Your task to perform on an android device: turn on bluetooth scan Image 0: 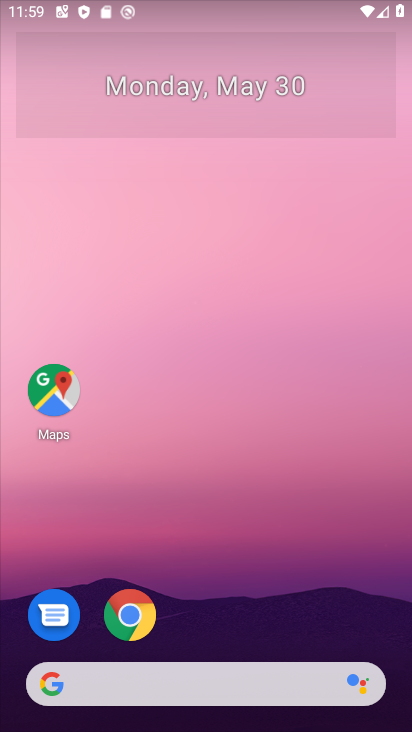
Step 0: drag from (243, 573) to (360, 51)
Your task to perform on an android device: turn on bluetooth scan Image 1: 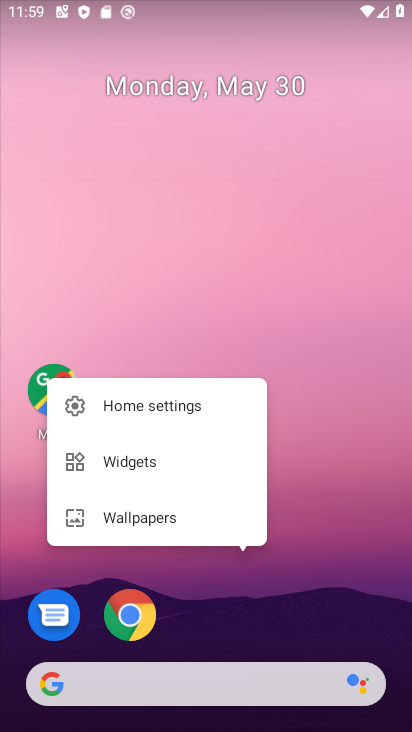
Step 1: click (308, 572)
Your task to perform on an android device: turn on bluetooth scan Image 2: 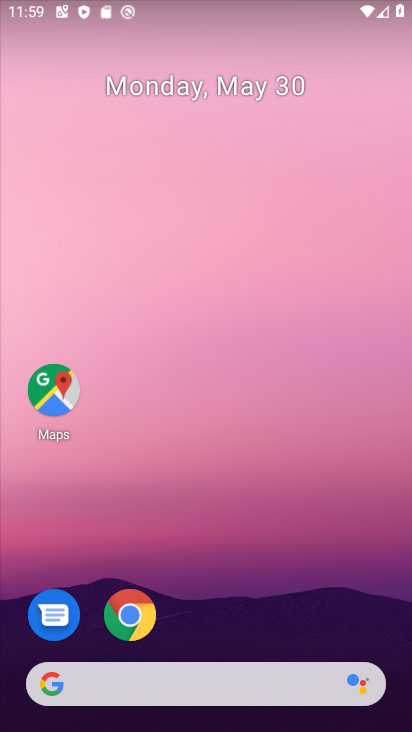
Step 2: drag from (220, 646) to (259, 9)
Your task to perform on an android device: turn on bluetooth scan Image 3: 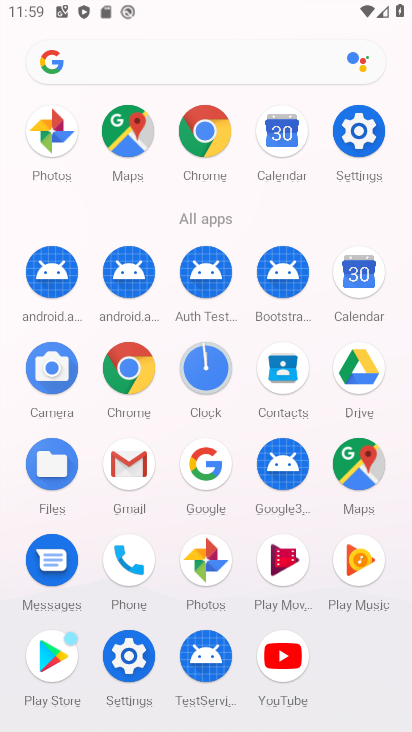
Step 3: click (364, 135)
Your task to perform on an android device: turn on bluetooth scan Image 4: 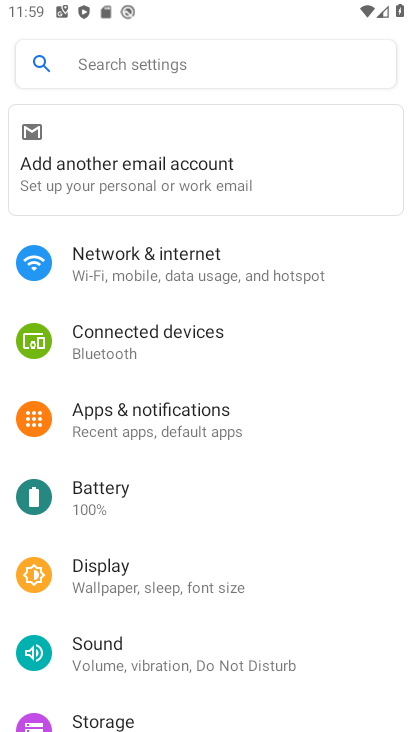
Step 4: drag from (189, 631) to (216, 297)
Your task to perform on an android device: turn on bluetooth scan Image 5: 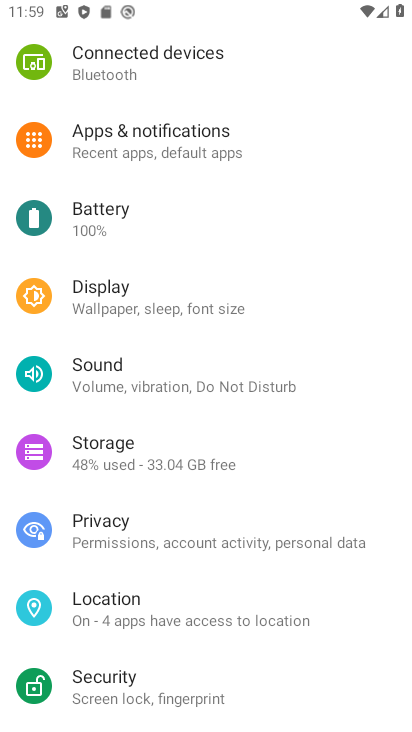
Step 5: drag from (161, 622) to (246, 145)
Your task to perform on an android device: turn on bluetooth scan Image 6: 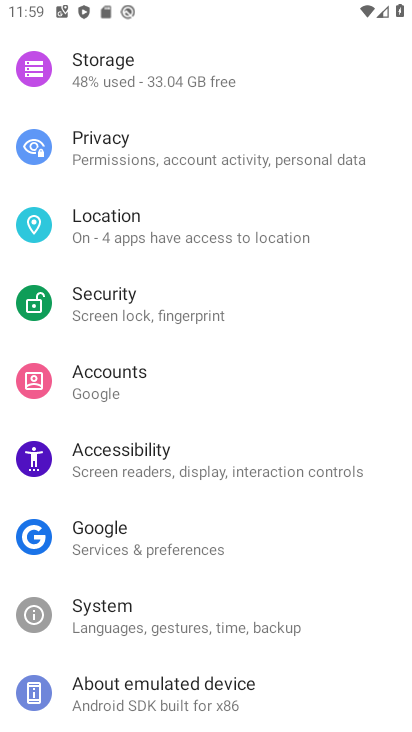
Step 6: click (144, 244)
Your task to perform on an android device: turn on bluetooth scan Image 7: 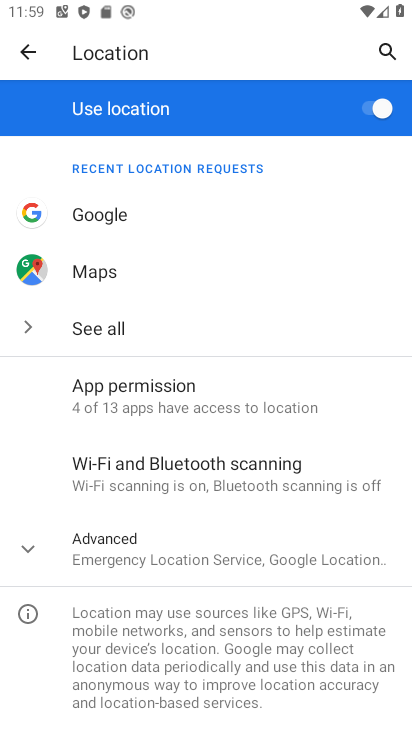
Step 7: click (177, 488)
Your task to perform on an android device: turn on bluetooth scan Image 8: 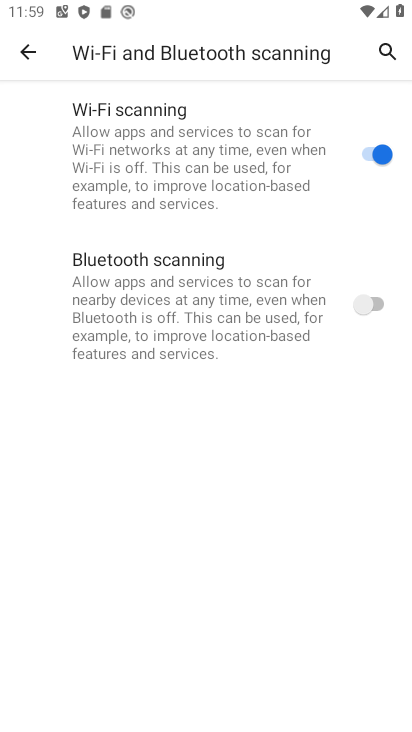
Step 8: click (386, 301)
Your task to perform on an android device: turn on bluetooth scan Image 9: 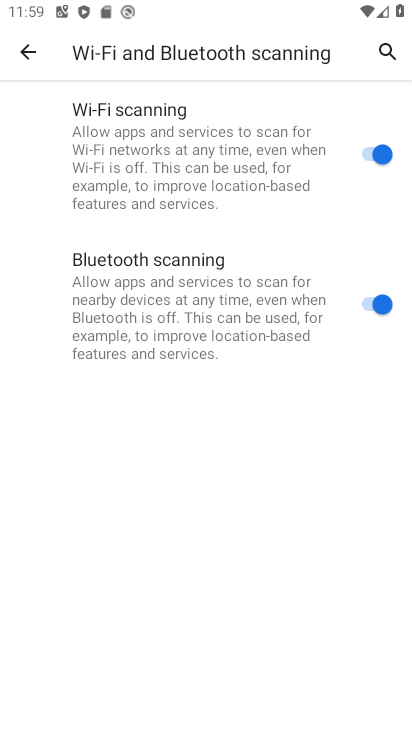
Step 9: task complete